Your task to perform on an android device: turn on showing notifications on the lock screen Image 0: 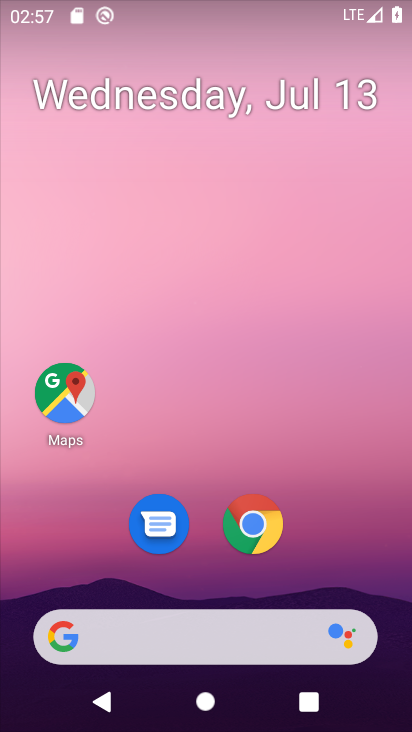
Step 0: drag from (329, 526) to (364, 11)
Your task to perform on an android device: turn on showing notifications on the lock screen Image 1: 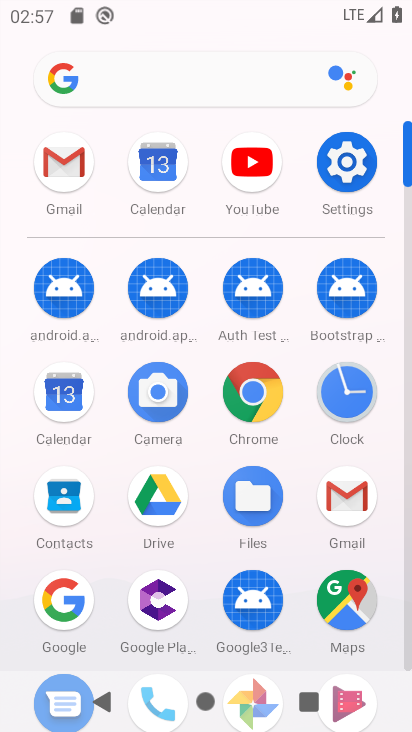
Step 1: click (337, 161)
Your task to perform on an android device: turn on showing notifications on the lock screen Image 2: 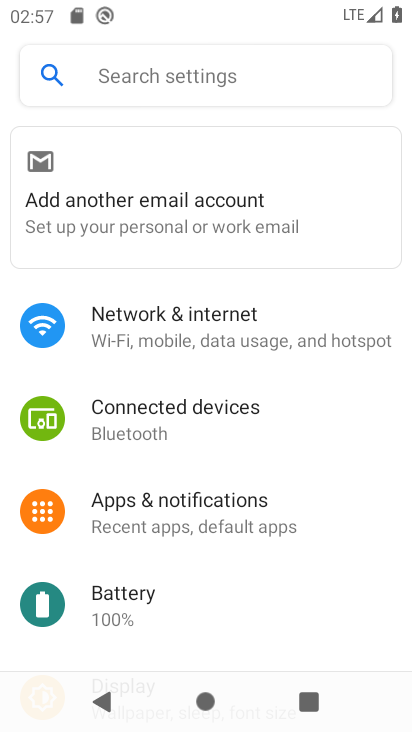
Step 2: click (241, 493)
Your task to perform on an android device: turn on showing notifications on the lock screen Image 3: 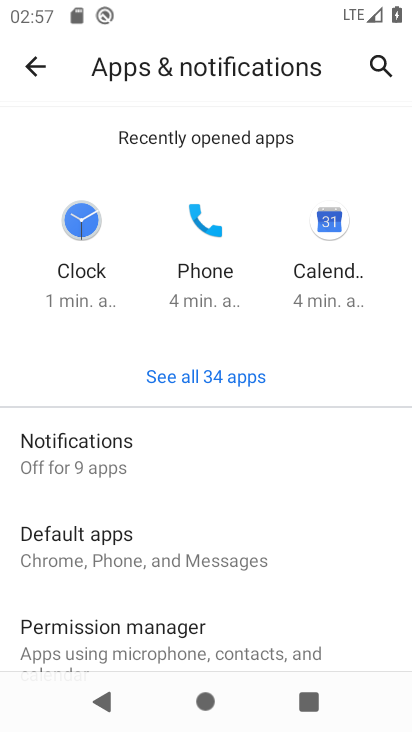
Step 3: click (112, 450)
Your task to perform on an android device: turn on showing notifications on the lock screen Image 4: 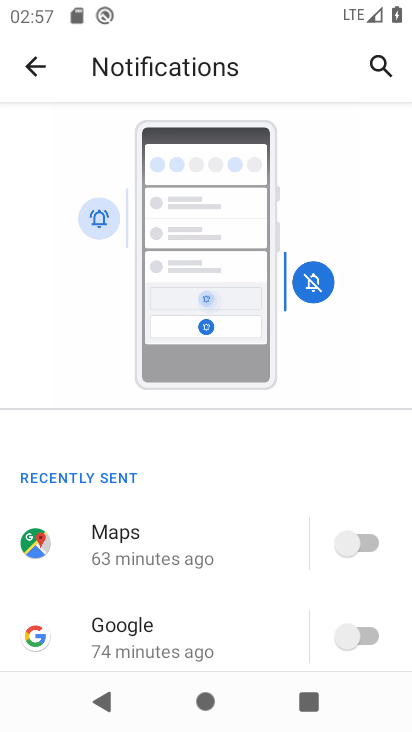
Step 4: drag from (223, 596) to (224, 91)
Your task to perform on an android device: turn on showing notifications on the lock screen Image 5: 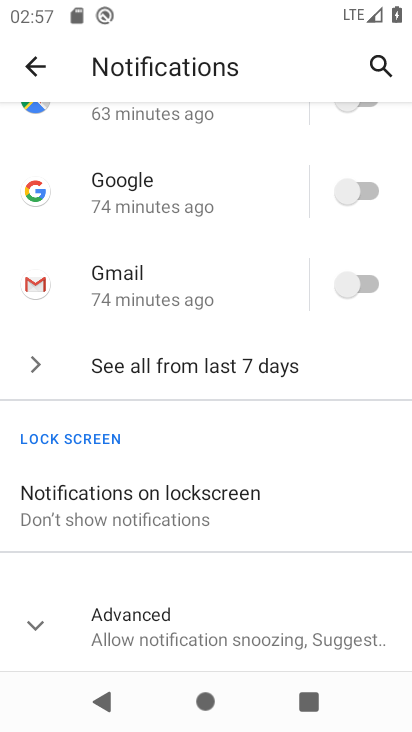
Step 5: click (183, 506)
Your task to perform on an android device: turn on showing notifications on the lock screen Image 6: 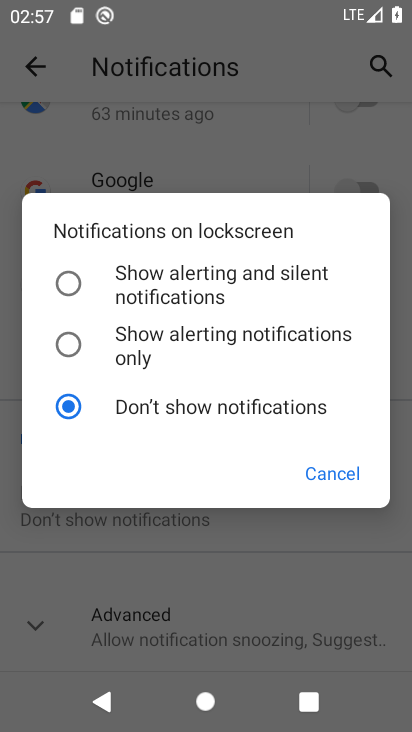
Step 6: click (74, 269)
Your task to perform on an android device: turn on showing notifications on the lock screen Image 7: 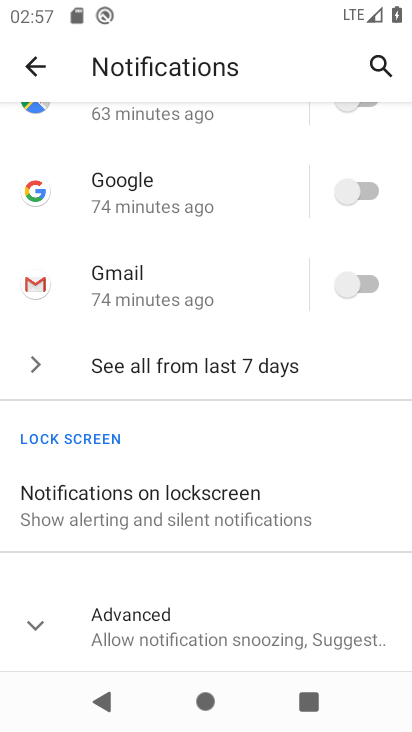
Step 7: task complete